Your task to perform on an android device: star an email in the gmail app Image 0: 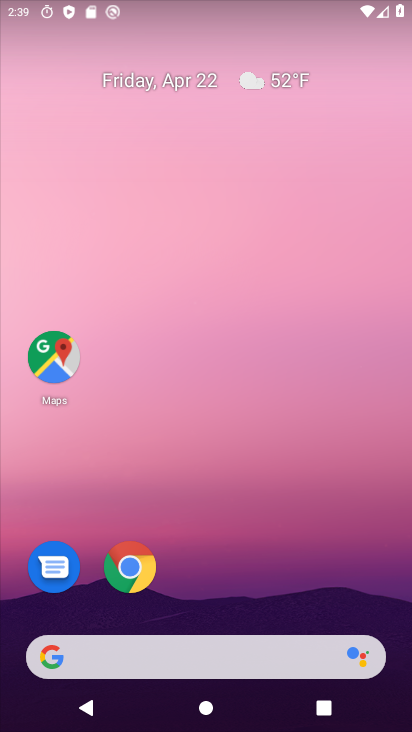
Step 0: drag from (231, 597) to (176, 127)
Your task to perform on an android device: star an email in the gmail app Image 1: 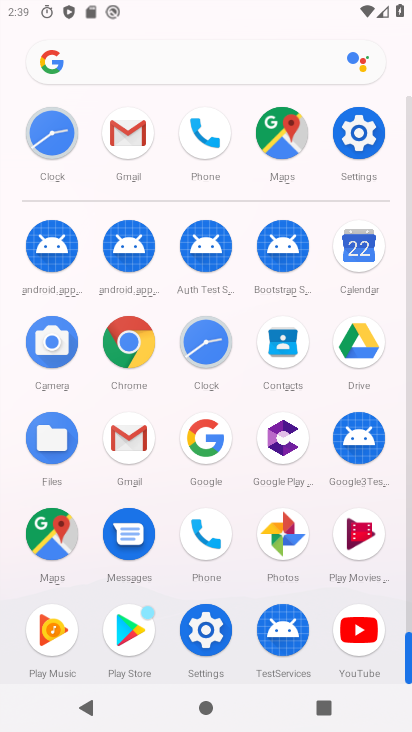
Step 1: click (132, 438)
Your task to perform on an android device: star an email in the gmail app Image 2: 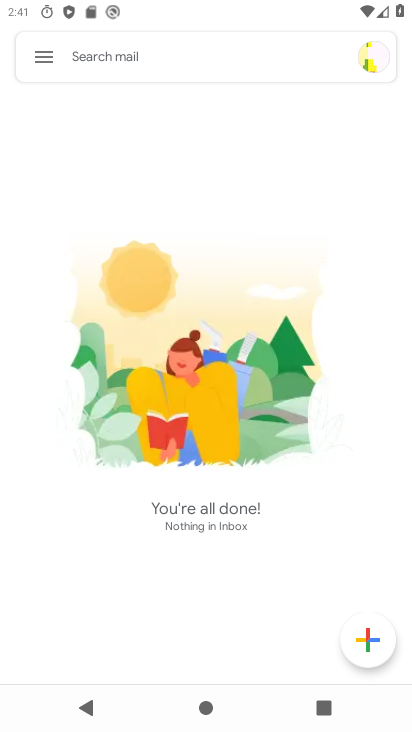
Step 2: task complete